Your task to perform on an android device: toggle airplane mode Image 0: 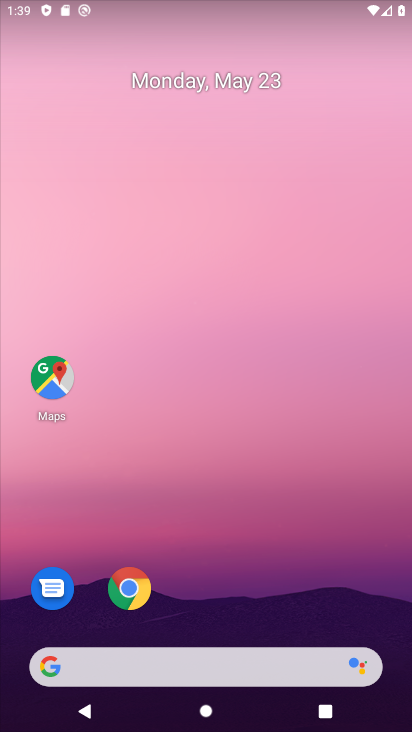
Step 0: drag from (226, 729) to (221, 254)
Your task to perform on an android device: toggle airplane mode Image 1: 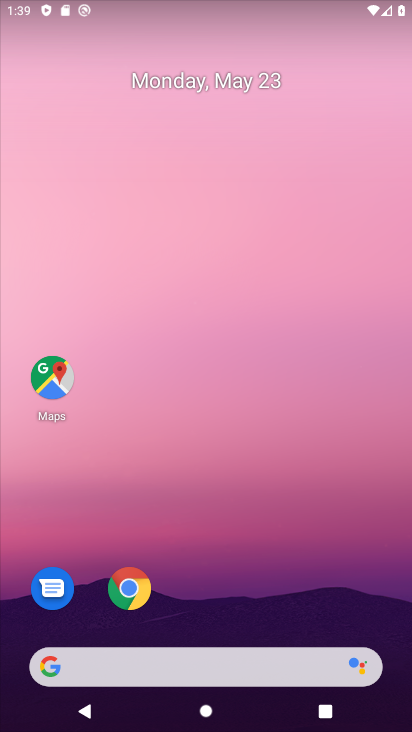
Step 1: drag from (226, 722) to (232, 268)
Your task to perform on an android device: toggle airplane mode Image 2: 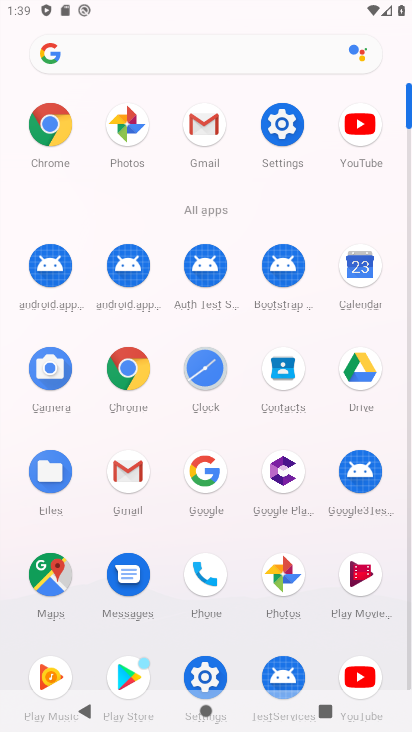
Step 2: click (281, 133)
Your task to perform on an android device: toggle airplane mode Image 3: 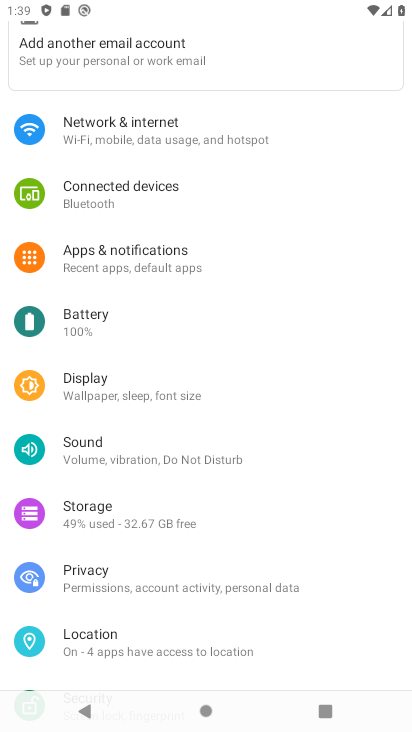
Step 3: click (105, 133)
Your task to perform on an android device: toggle airplane mode Image 4: 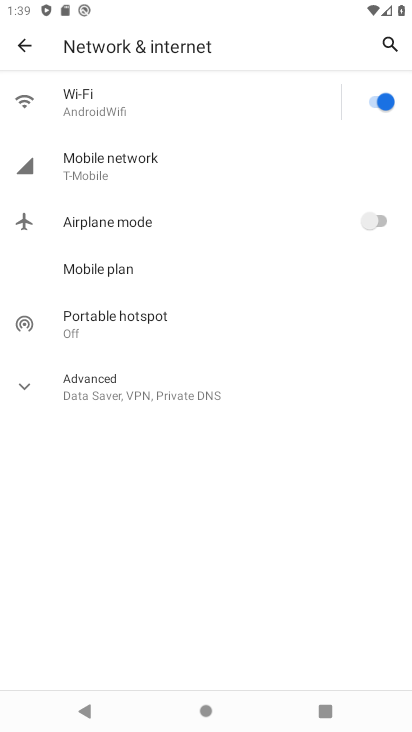
Step 4: click (383, 215)
Your task to perform on an android device: toggle airplane mode Image 5: 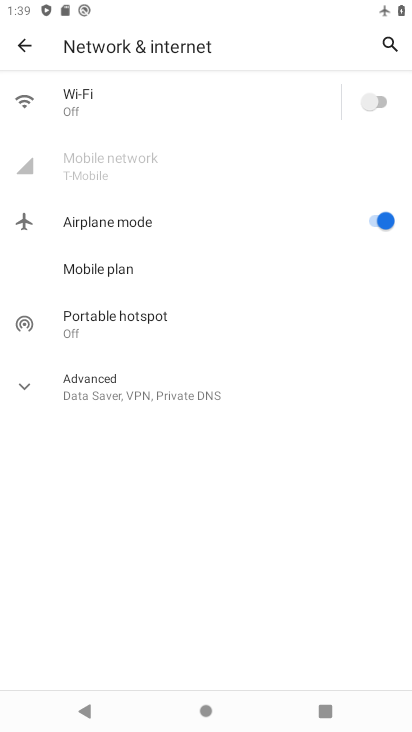
Step 5: task complete